Your task to perform on an android device: Check the weather Image 0: 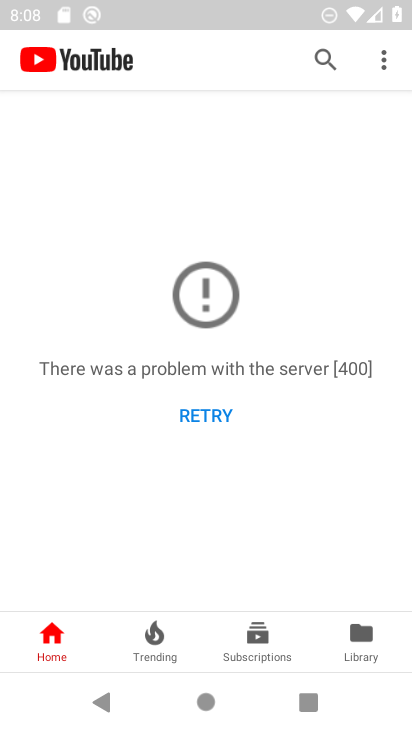
Step 0: press home button
Your task to perform on an android device: Check the weather Image 1: 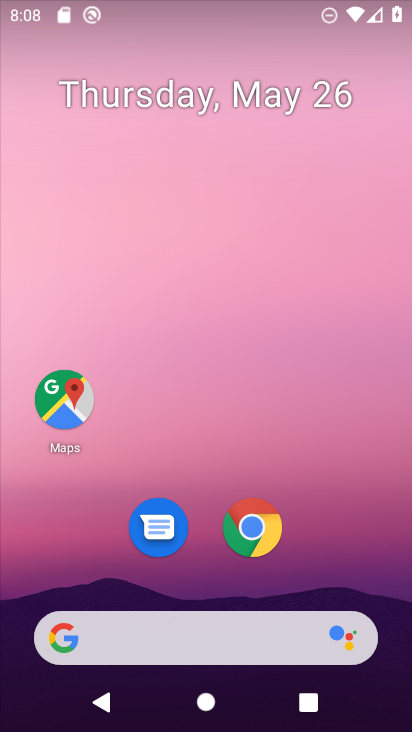
Step 1: click (146, 633)
Your task to perform on an android device: Check the weather Image 2: 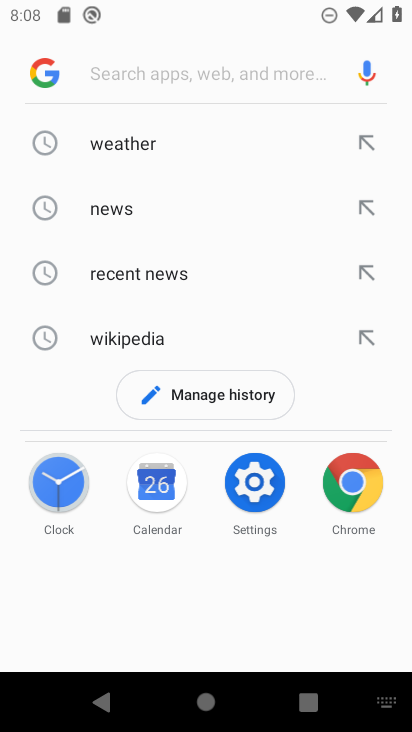
Step 2: click (157, 137)
Your task to perform on an android device: Check the weather Image 3: 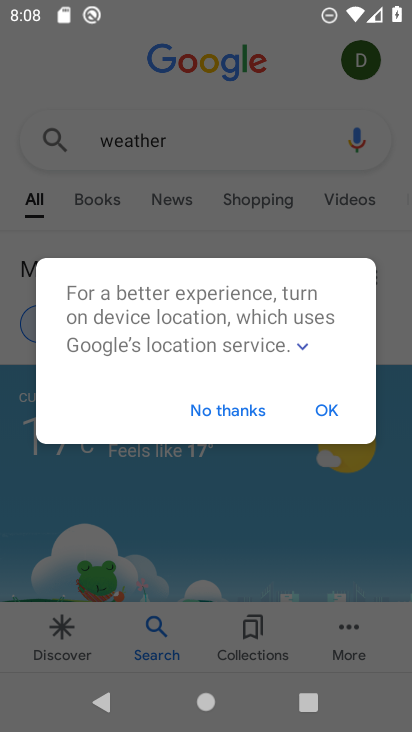
Step 3: click (325, 417)
Your task to perform on an android device: Check the weather Image 4: 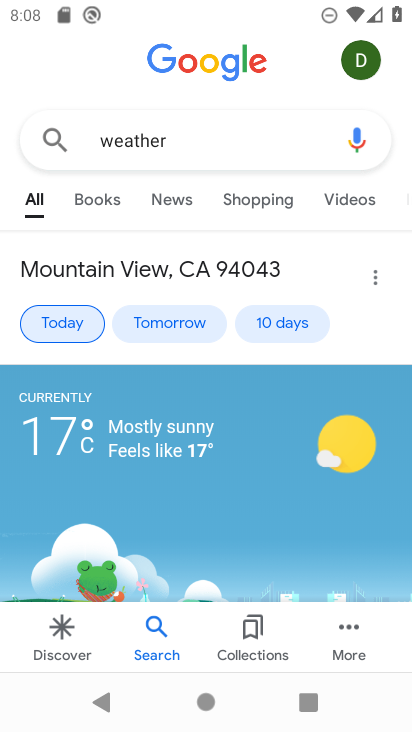
Step 4: task complete